Your task to perform on an android device: find photos in the google photos app Image 0: 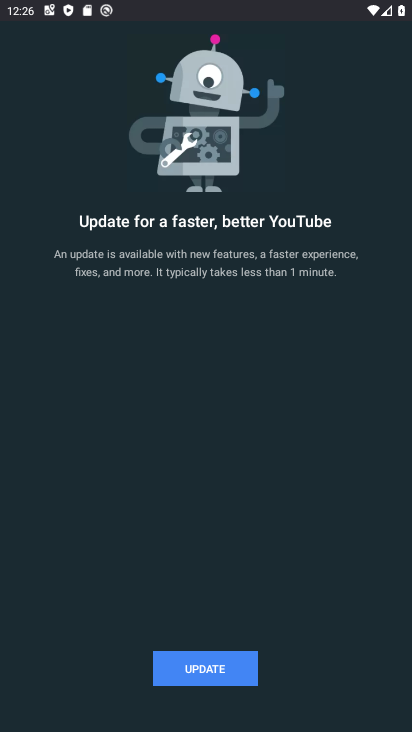
Step 0: press home button
Your task to perform on an android device: find photos in the google photos app Image 1: 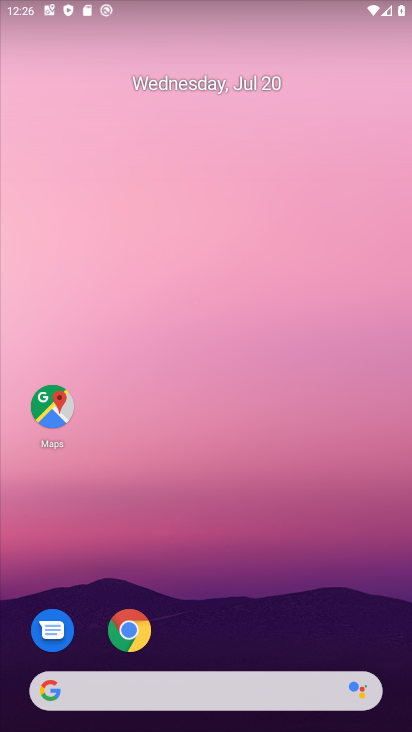
Step 1: drag from (267, 568) to (230, 117)
Your task to perform on an android device: find photos in the google photos app Image 2: 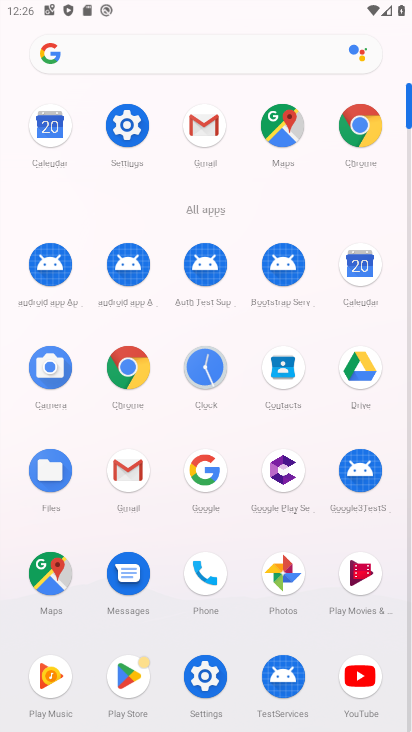
Step 2: click (282, 583)
Your task to perform on an android device: find photos in the google photos app Image 3: 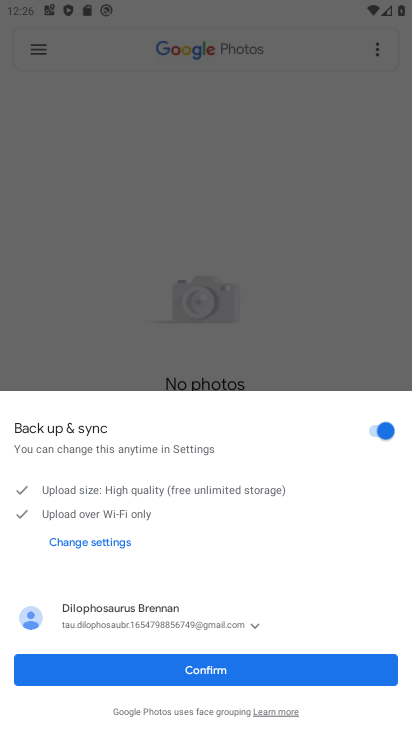
Step 3: click (197, 673)
Your task to perform on an android device: find photos in the google photos app Image 4: 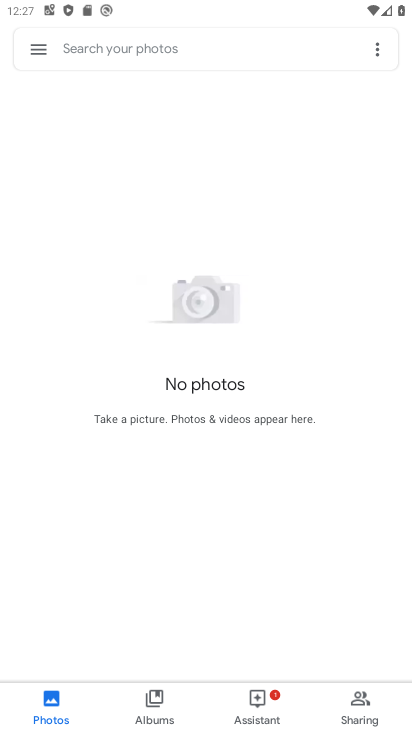
Step 4: click (35, 699)
Your task to perform on an android device: find photos in the google photos app Image 5: 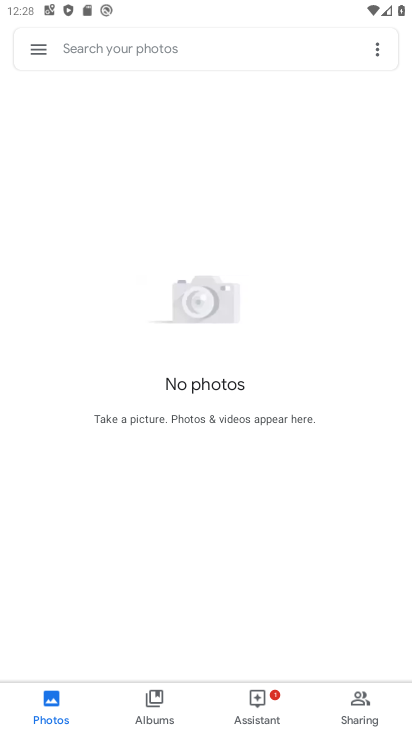
Step 5: click (49, 700)
Your task to perform on an android device: find photos in the google photos app Image 6: 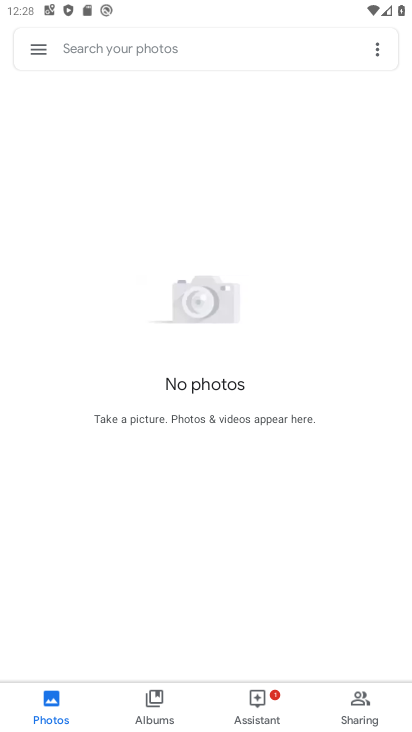
Step 6: click (49, 700)
Your task to perform on an android device: find photos in the google photos app Image 7: 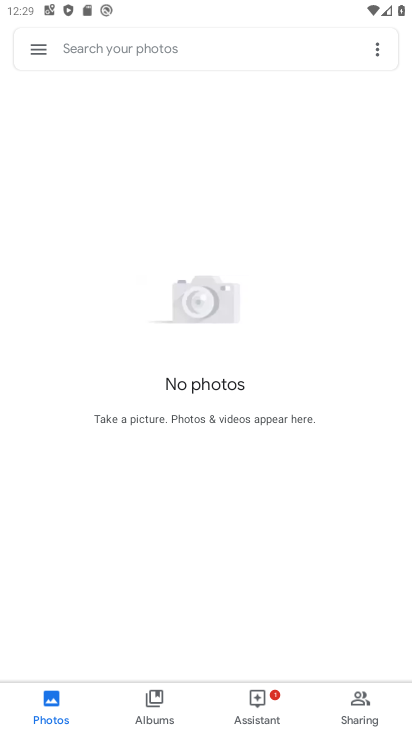
Step 7: task complete